Your task to perform on an android device: Open privacy settings Image 0: 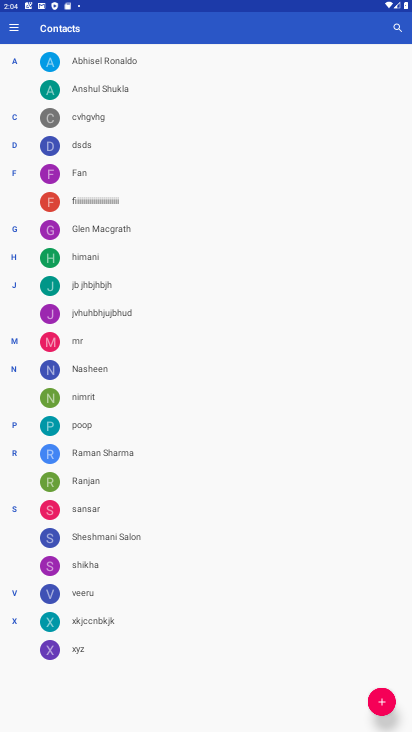
Step 0: press home button
Your task to perform on an android device: Open privacy settings Image 1: 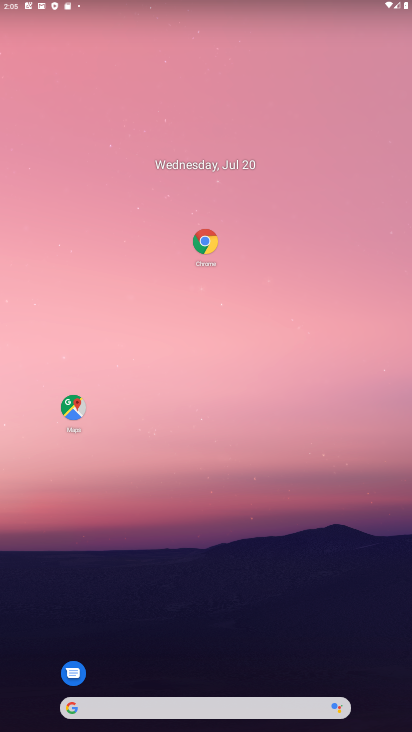
Step 1: drag from (203, 649) to (233, 49)
Your task to perform on an android device: Open privacy settings Image 2: 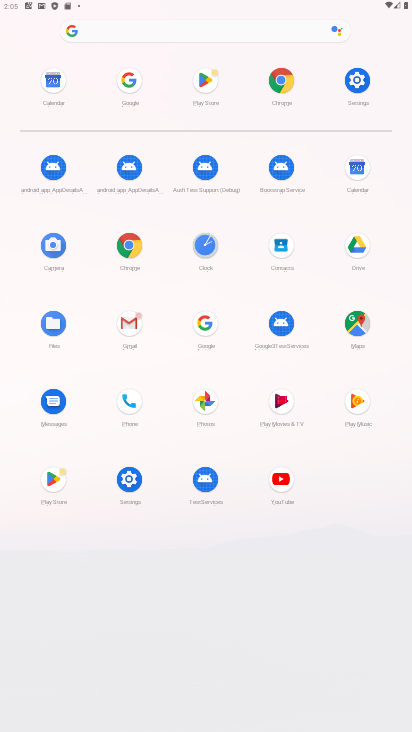
Step 2: click (132, 480)
Your task to perform on an android device: Open privacy settings Image 3: 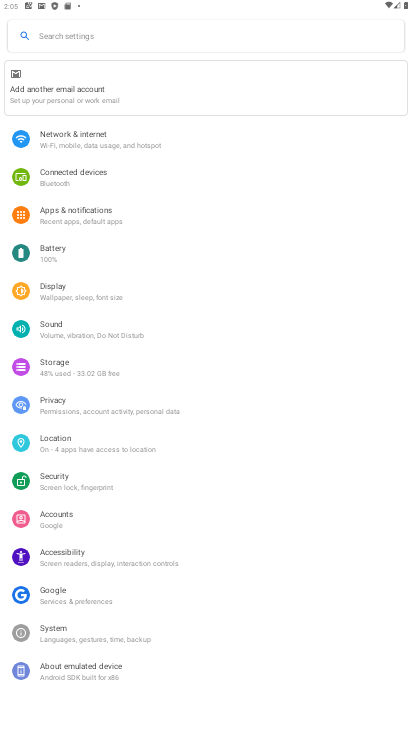
Step 3: click (76, 404)
Your task to perform on an android device: Open privacy settings Image 4: 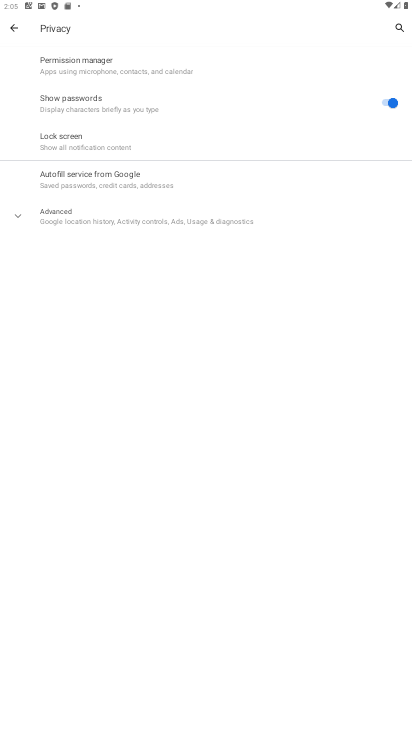
Step 4: task complete